Your task to perform on an android device: Open the web browser Image 0: 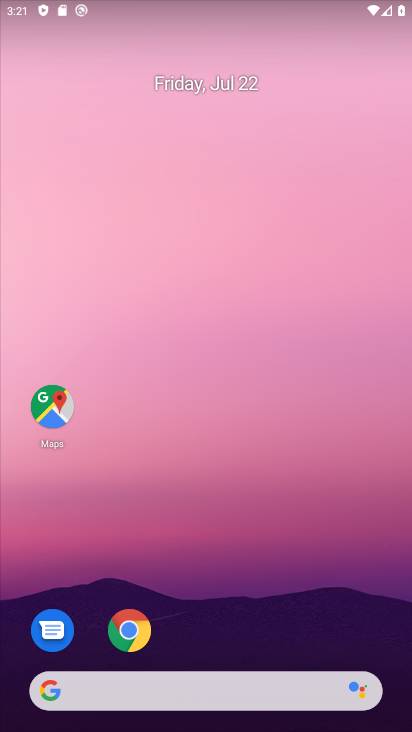
Step 0: drag from (189, 652) to (189, 28)
Your task to perform on an android device: Open the web browser Image 1: 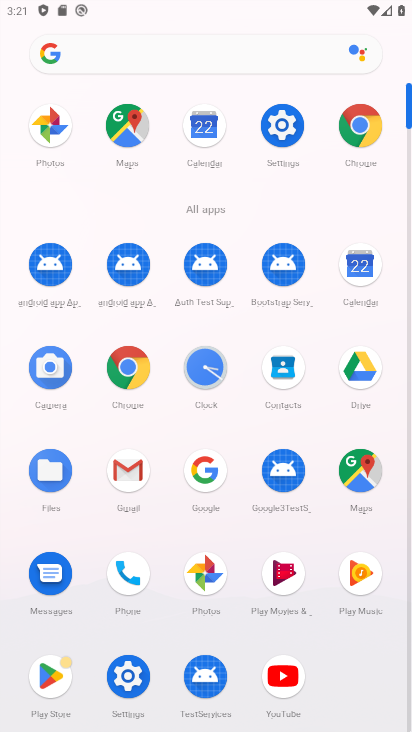
Step 1: click (130, 364)
Your task to perform on an android device: Open the web browser Image 2: 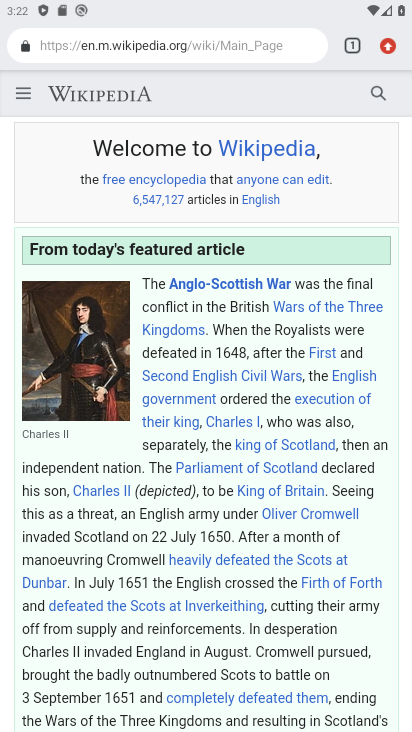
Step 2: task complete